Your task to perform on an android device: Go to calendar. Show me events next week Image 0: 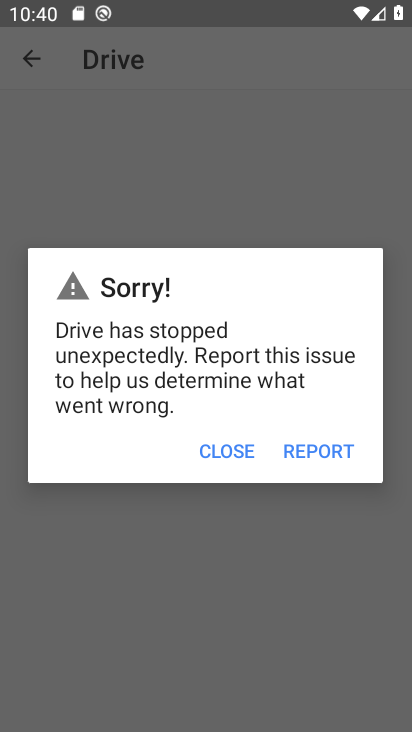
Step 0: press home button
Your task to perform on an android device: Go to calendar. Show me events next week Image 1: 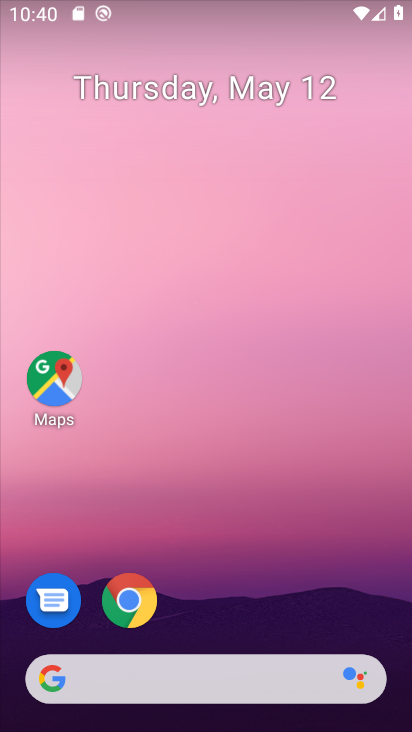
Step 1: drag from (219, 518) to (142, 144)
Your task to perform on an android device: Go to calendar. Show me events next week Image 2: 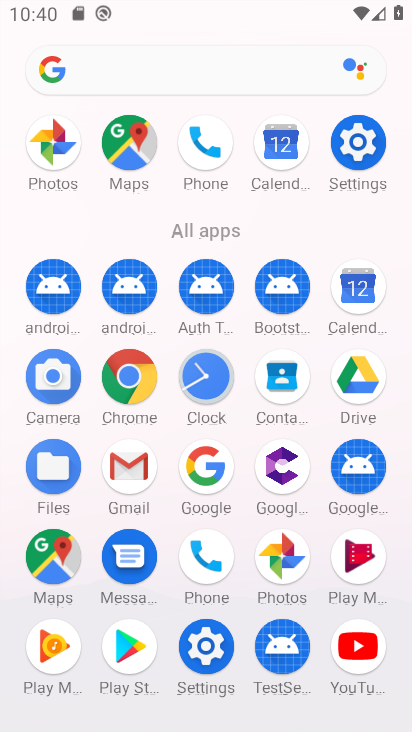
Step 2: click (280, 157)
Your task to perform on an android device: Go to calendar. Show me events next week Image 3: 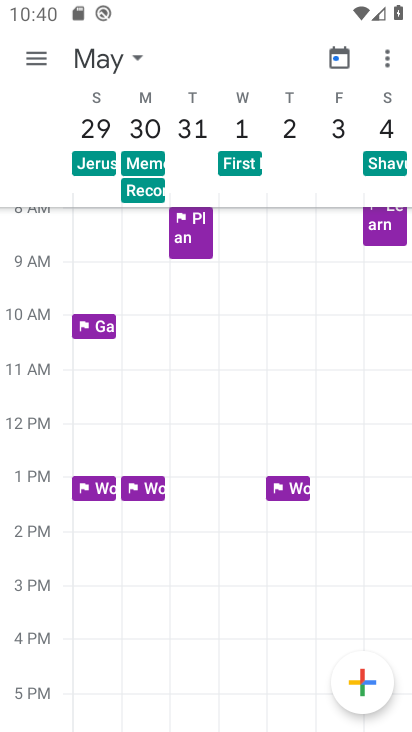
Step 3: click (108, 61)
Your task to perform on an android device: Go to calendar. Show me events next week Image 4: 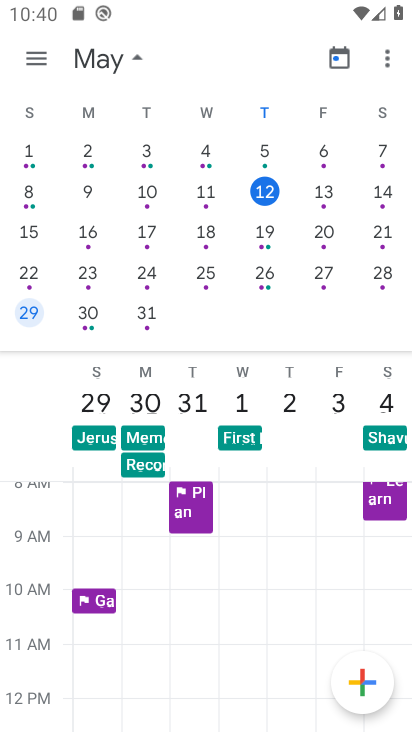
Step 4: click (24, 233)
Your task to perform on an android device: Go to calendar. Show me events next week Image 5: 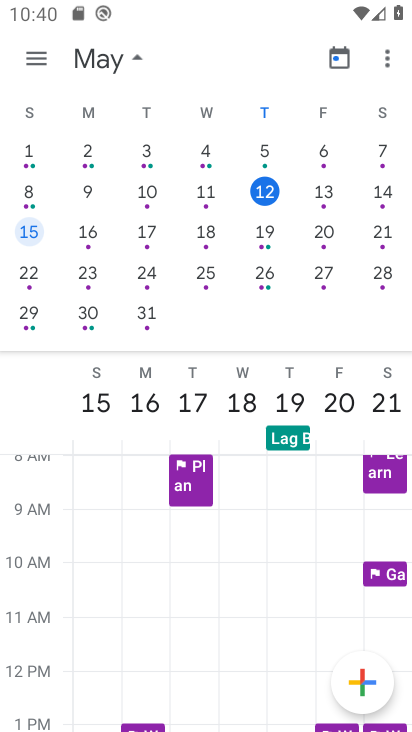
Step 5: click (97, 67)
Your task to perform on an android device: Go to calendar. Show me events next week Image 6: 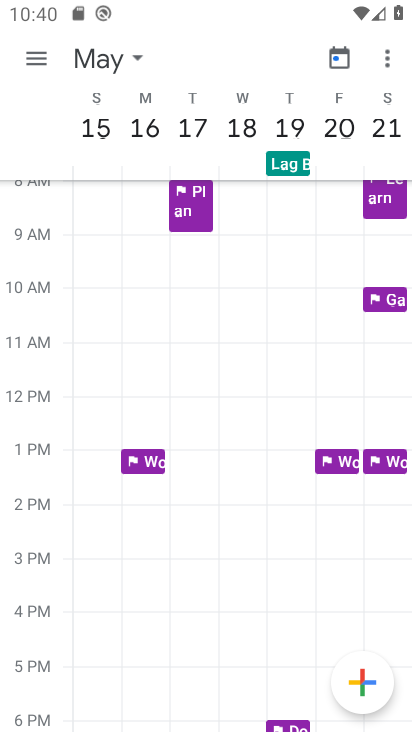
Step 6: task complete